Your task to perform on an android device: Show me the alarms in the clock app Image 0: 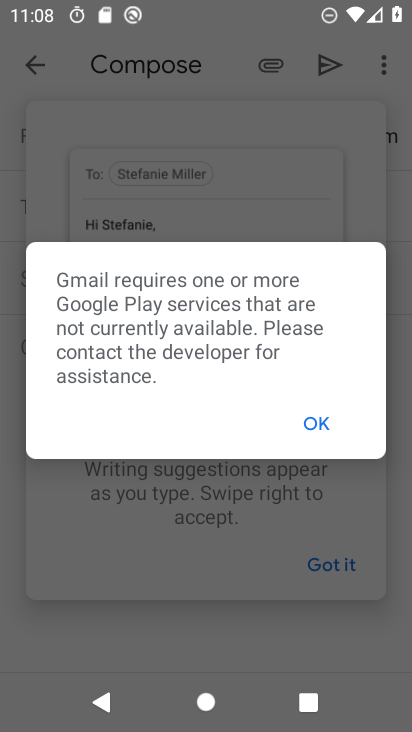
Step 0: press home button
Your task to perform on an android device: Show me the alarms in the clock app Image 1: 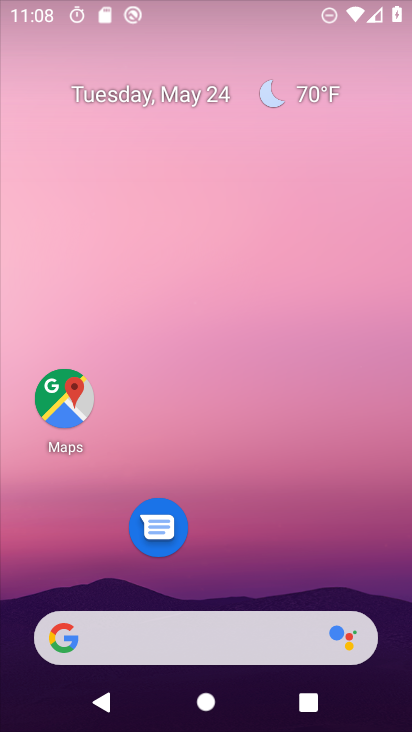
Step 1: drag from (252, 517) to (287, 63)
Your task to perform on an android device: Show me the alarms in the clock app Image 2: 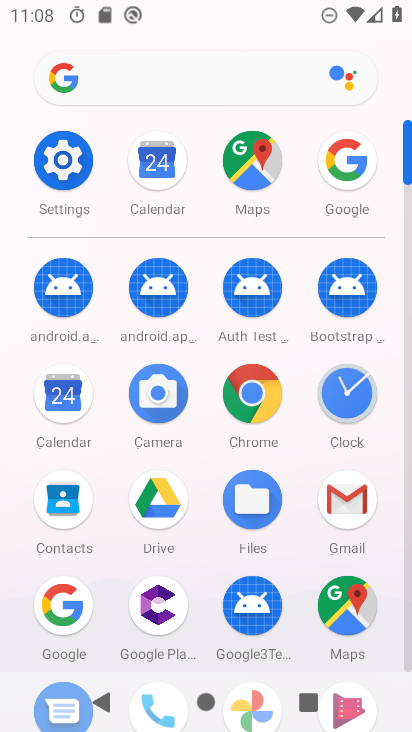
Step 2: click (347, 401)
Your task to perform on an android device: Show me the alarms in the clock app Image 3: 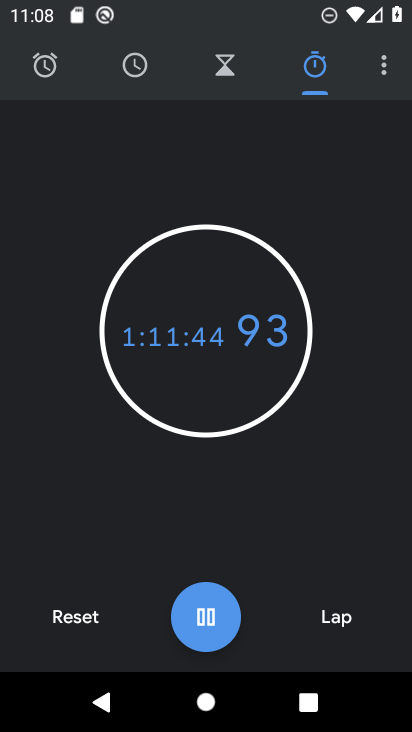
Step 3: click (52, 71)
Your task to perform on an android device: Show me the alarms in the clock app Image 4: 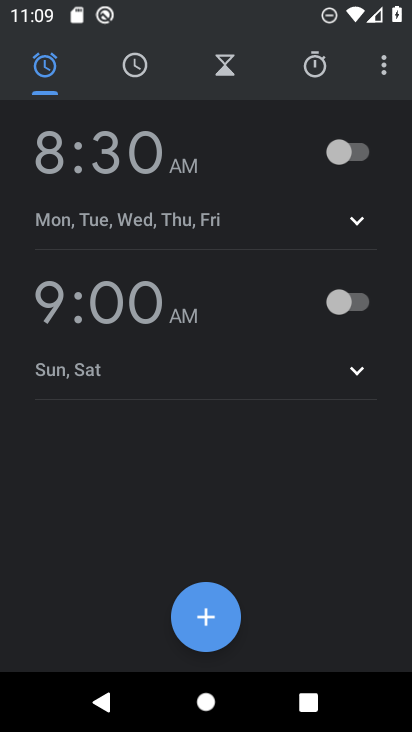
Step 4: task complete